Your task to perform on an android device: Go to ESPN.com Image 0: 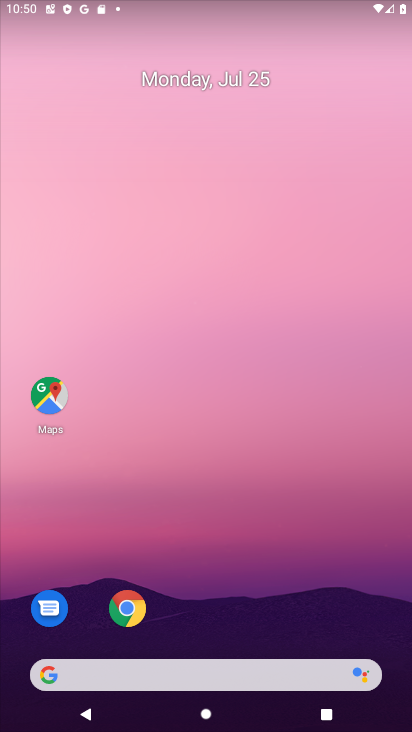
Step 0: drag from (190, 554) to (173, 107)
Your task to perform on an android device: Go to ESPN.com Image 1: 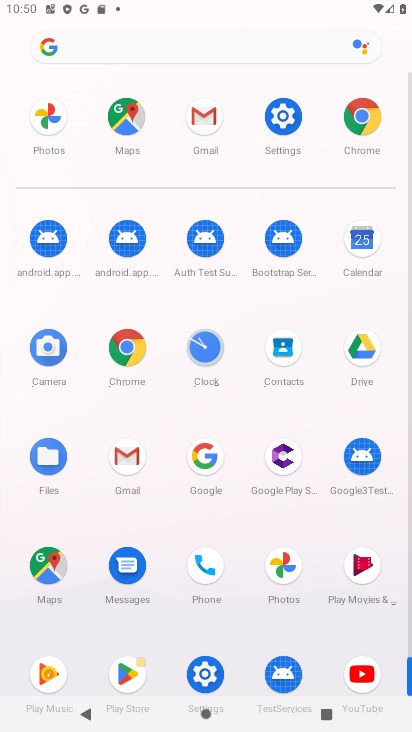
Step 1: click (356, 111)
Your task to perform on an android device: Go to ESPN.com Image 2: 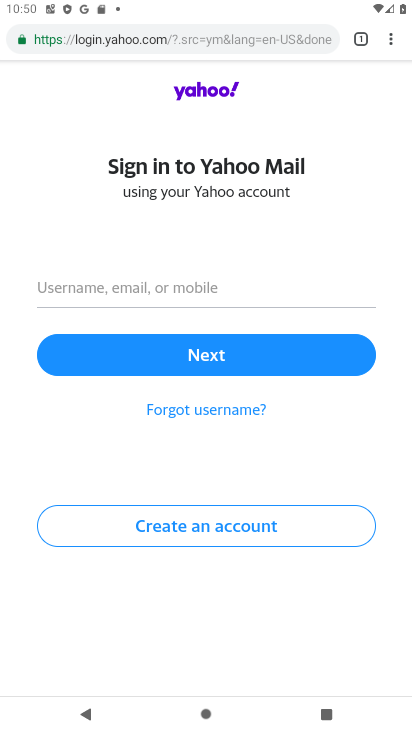
Step 2: click (218, 41)
Your task to perform on an android device: Go to ESPN.com Image 3: 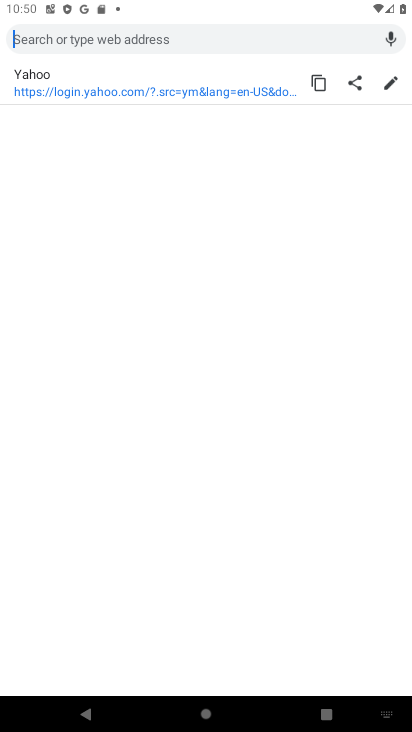
Step 3: click (267, 37)
Your task to perform on an android device: Go to ESPN.com Image 4: 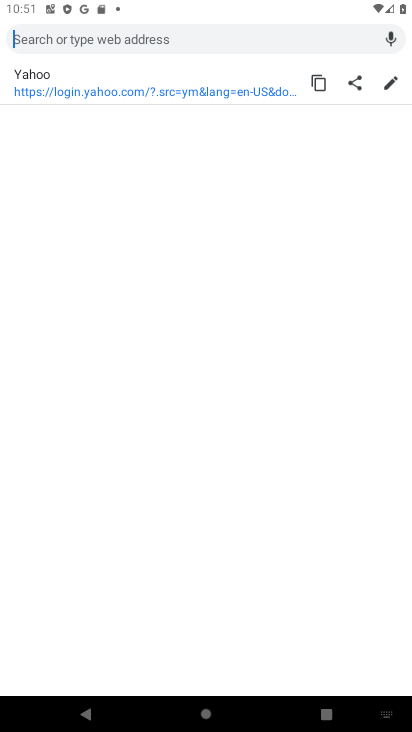
Step 4: type "espn"
Your task to perform on an android device: Go to ESPN.com Image 5: 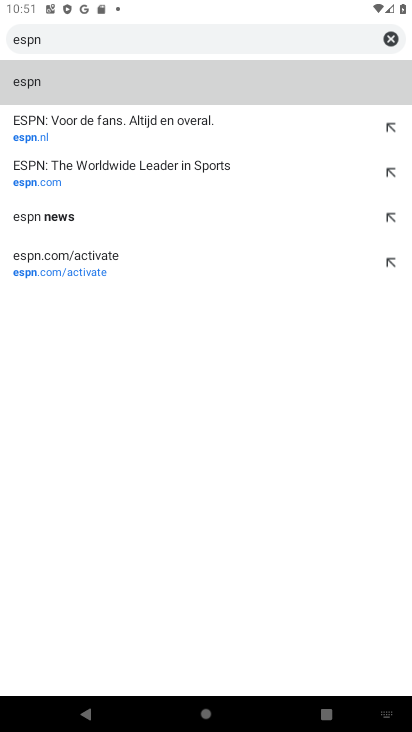
Step 5: click (141, 138)
Your task to perform on an android device: Go to ESPN.com Image 6: 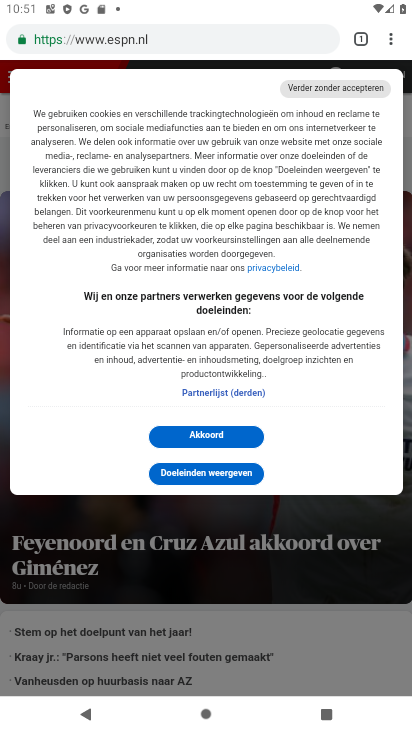
Step 6: task complete